Your task to perform on an android device: turn pop-ups on in chrome Image 0: 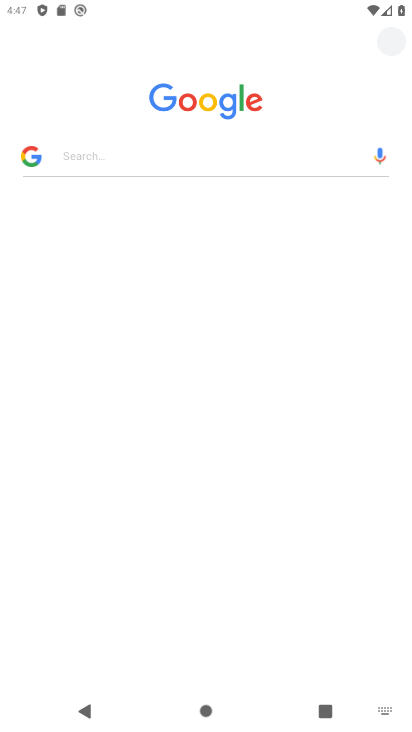
Step 0: press back button
Your task to perform on an android device: turn pop-ups on in chrome Image 1: 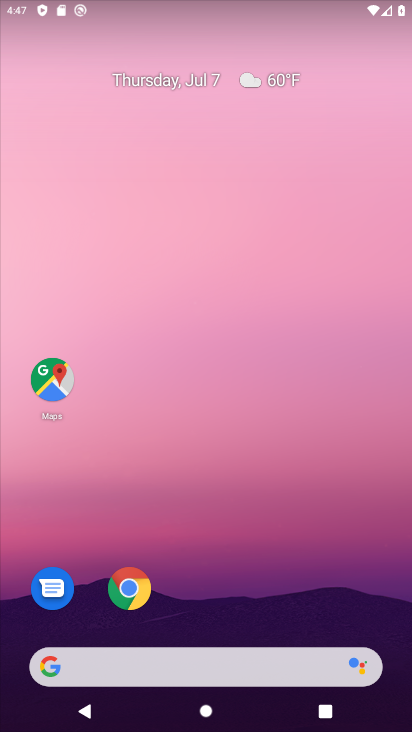
Step 1: click (129, 588)
Your task to perform on an android device: turn pop-ups on in chrome Image 2: 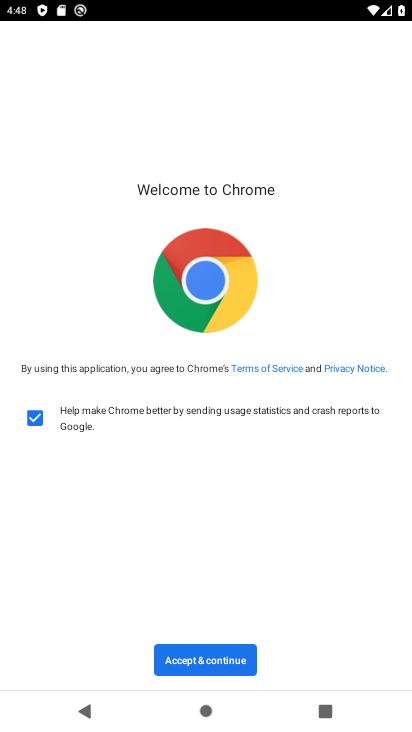
Step 2: click (262, 668)
Your task to perform on an android device: turn pop-ups on in chrome Image 3: 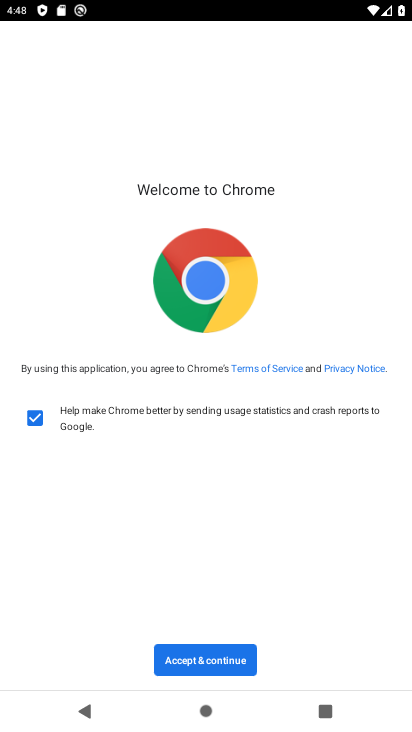
Step 3: click (245, 670)
Your task to perform on an android device: turn pop-ups on in chrome Image 4: 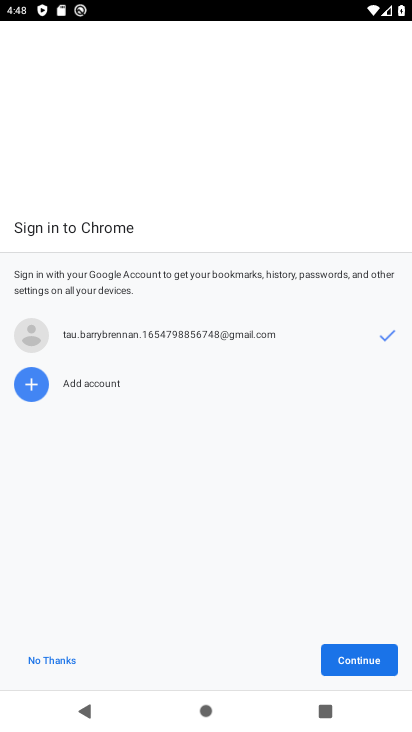
Step 4: click (352, 654)
Your task to perform on an android device: turn pop-ups on in chrome Image 5: 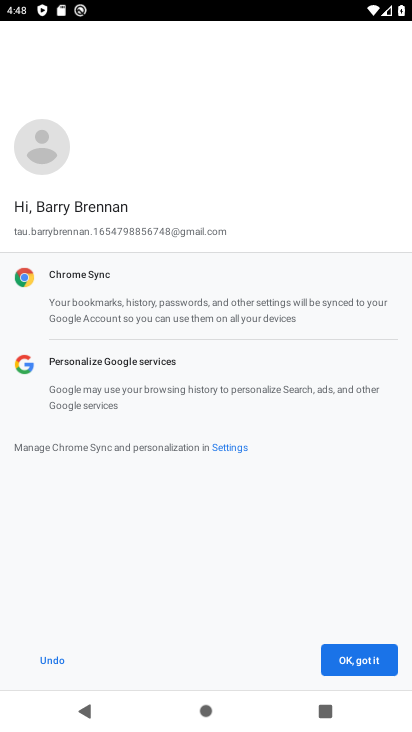
Step 5: click (360, 669)
Your task to perform on an android device: turn pop-ups on in chrome Image 6: 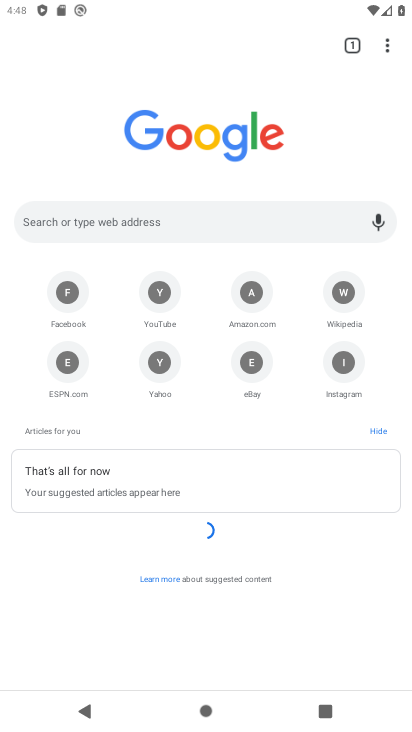
Step 6: drag from (391, 44) to (226, 379)
Your task to perform on an android device: turn pop-ups on in chrome Image 7: 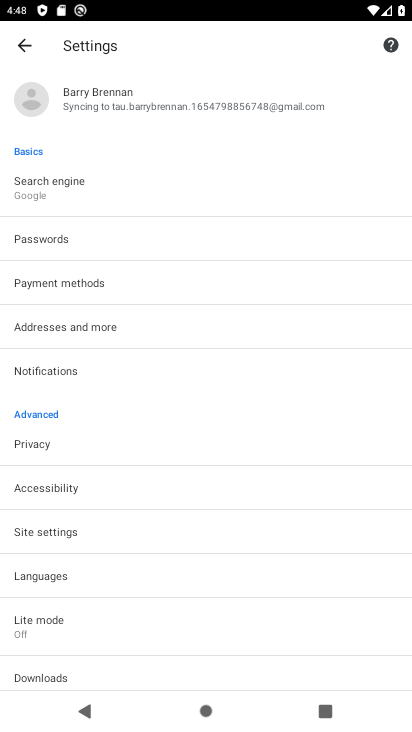
Step 7: click (61, 534)
Your task to perform on an android device: turn pop-ups on in chrome Image 8: 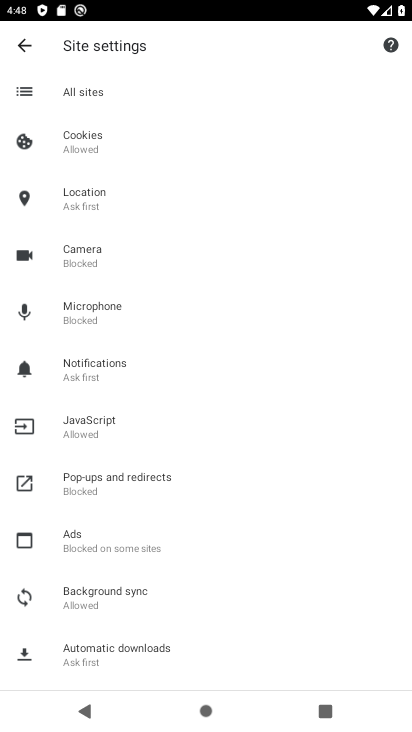
Step 8: click (153, 489)
Your task to perform on an android device: turn pop-ups on in chrome Image 9: 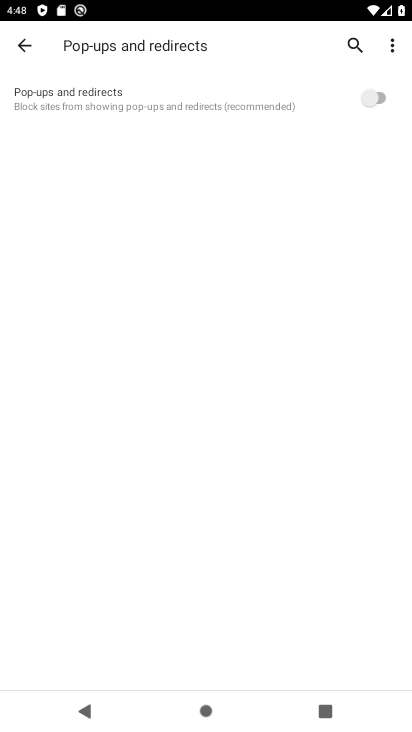
Step 9: click (366, 99)
Your task to perform on an android device: turn pop-ups on in chrome Image 10: 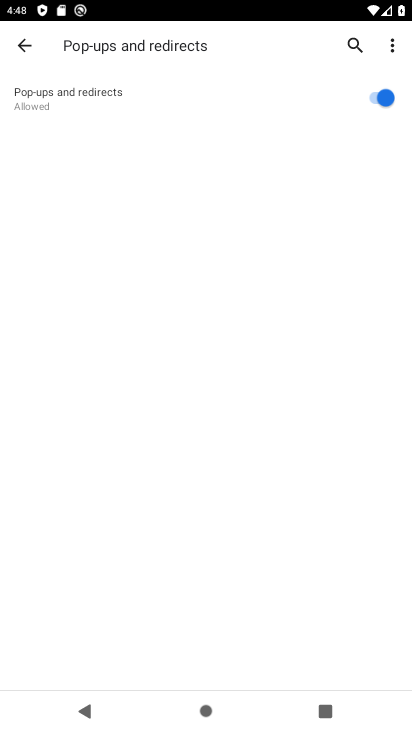
Step 10: task complete